Your task to perform on an android device: toggle data saver in the chrome app Image 0: 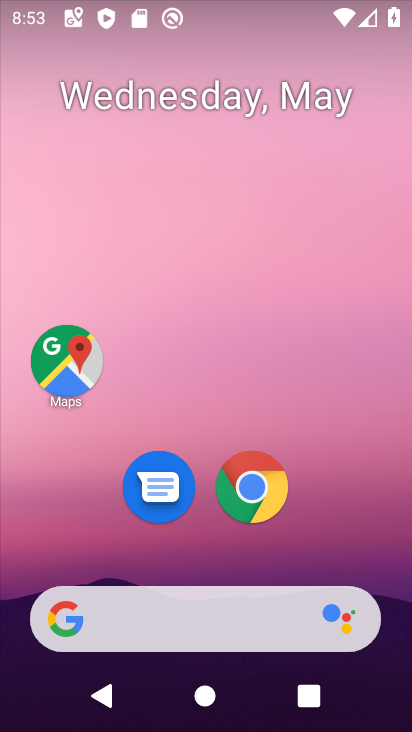
Step 0: click (254, 488)
Your task to perform on an android device: toggle data saver in the chrome app Image 1: 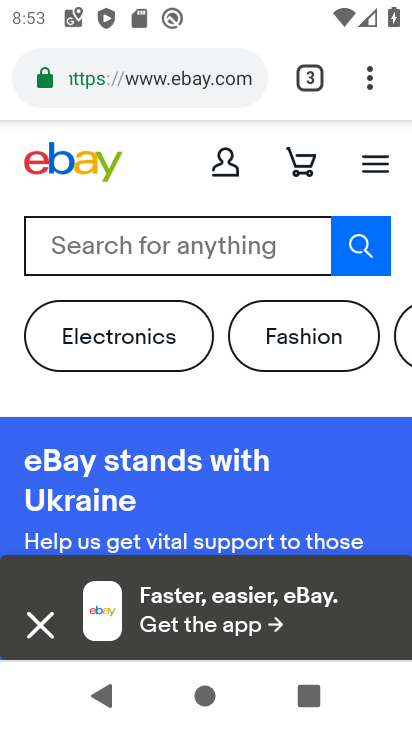
Step 1: click (369, 82)
Your task to perform on an android device: toggle data saver in the chrome app Image 2: 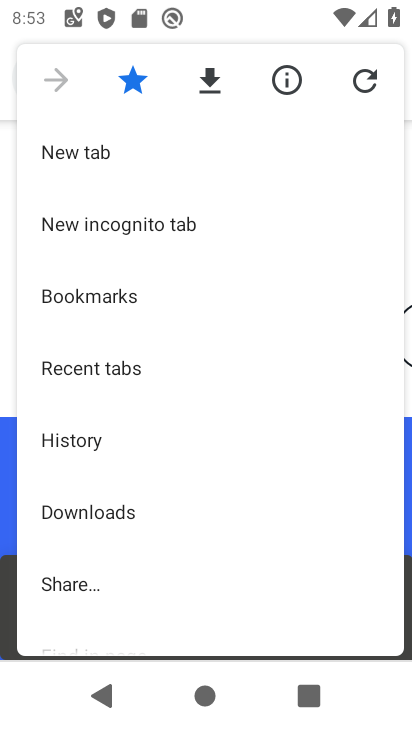
Step 2: drag from (242, 458) to (171, 221)
Your task to perform on an android device: toggle data saver in the chrome app Image 3: 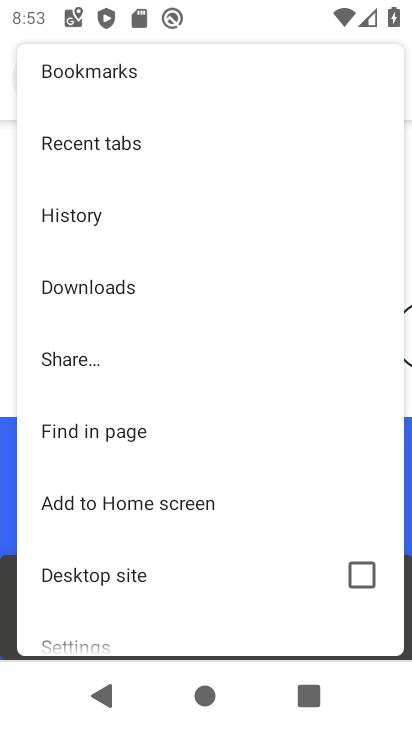
Step 3: drag from (168, 541) to (81, 207)
Your task to perform on an android device: toggle data saver in the chrome app Image 4: 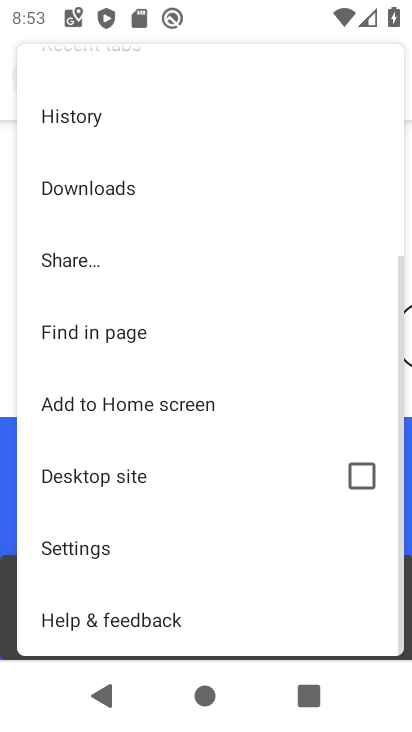
Step 4: click (78, 538)
Your task to perform on an android device: toggle data saver in the chrome app Image 5: 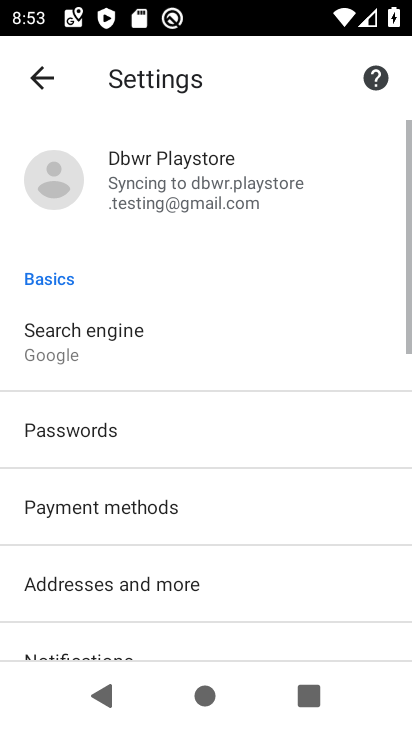
Step 5: drag from (165, 431) to (98, 196)
Your task to perform on an android device: toggle data saver in the chrome app Image 6: 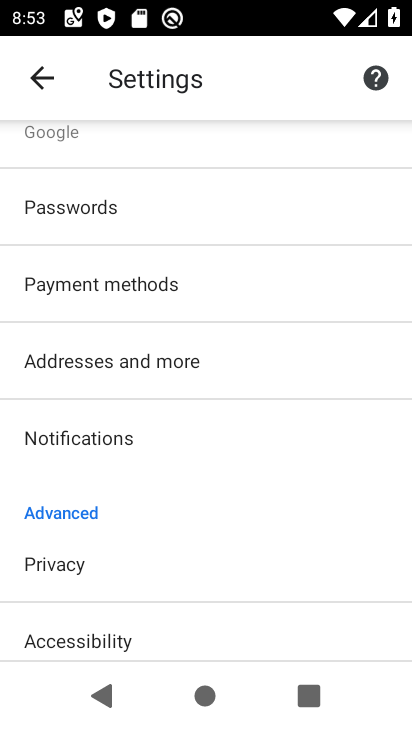
Step 6: drag from (167, 497) to (135, 248)
Your task to perform on an android device: toggle data saver in the chrome app Image 7: 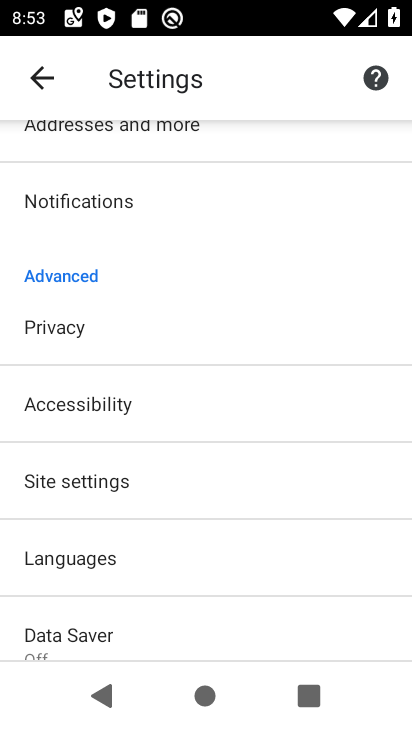
Step 7: click (59, 634)
Your task to perform on an android device: toggle data saver in the chrome app Image 8: 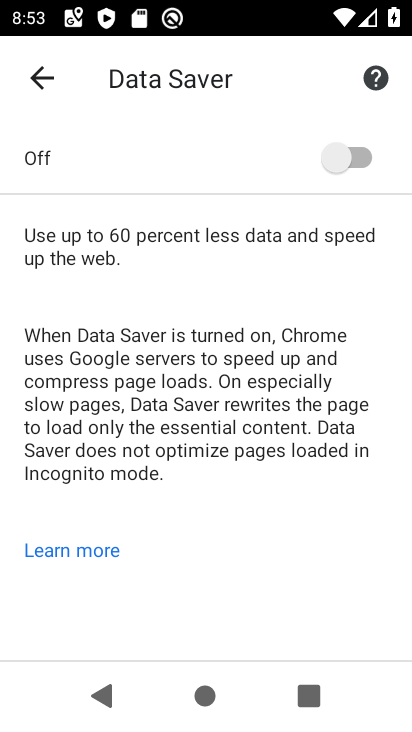
Step 8: click (337, 156)
Your task to perform on an android device: toggle data saver in the chrome app Image 9: 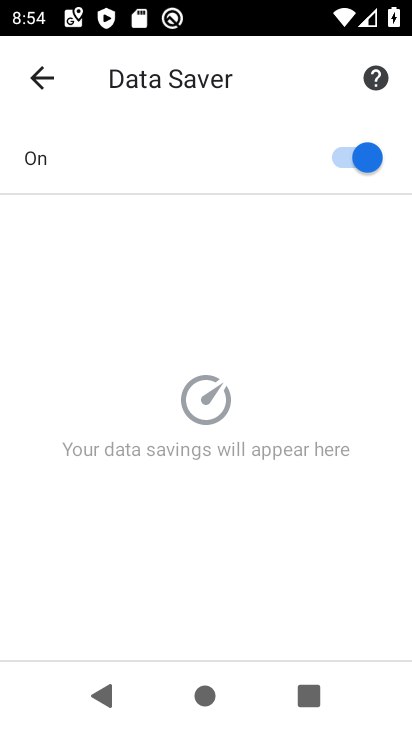
Step 9: task complete